Your task to perform on an android device: see sites visited before in the chrome app Image 0: 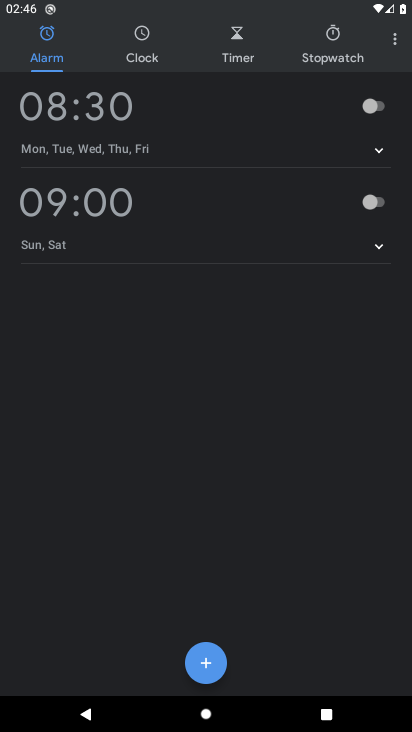
Step 0: press home button
Your task to perform on an android device: see sites visited before in the chrome app Image 1: 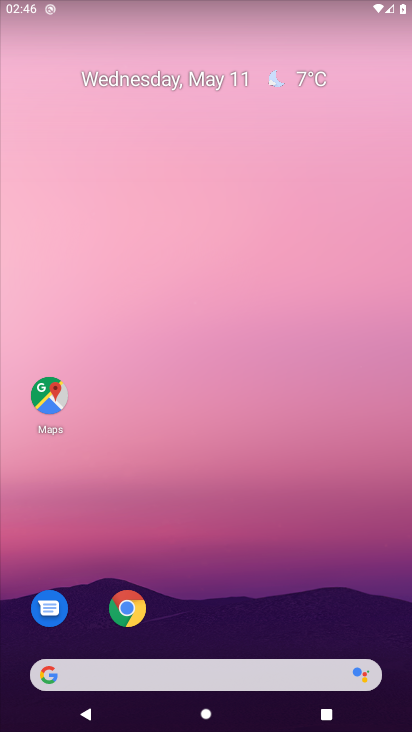
Step 1: drag from (218, 636) to (278, 139)
Your task to perform on an android device: see sites visited before in the chrome app Image 2: 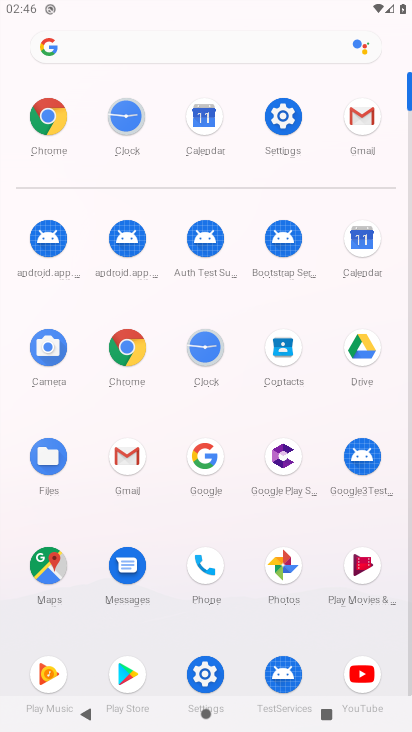
Step 2: click (130, 339)
Your task to perform on an android device: see sites visited before in the chrome app Image 3: 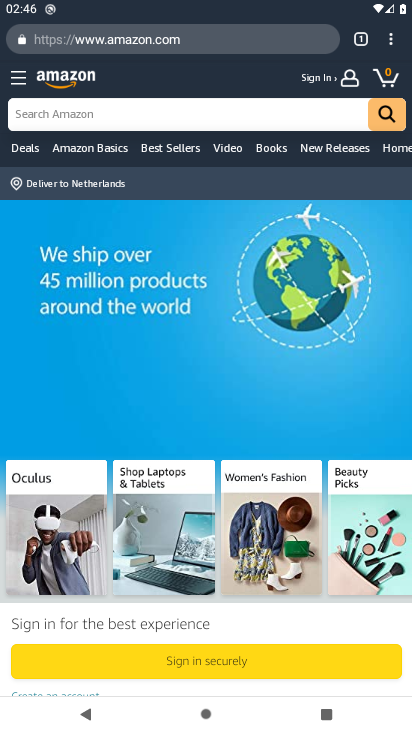
Step 3: click (391, 36)
Your task to perform on an android device: see sites visited before in the chrome app Image 4: 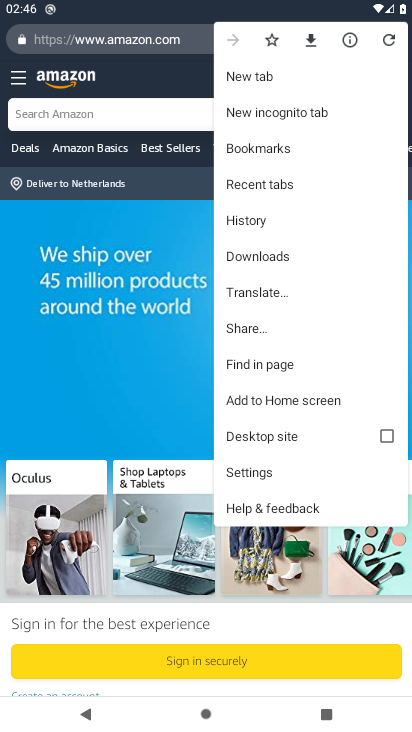
Step 4: click (278, 472)
Your task to perform on an android device: see sites visited before in the chrome app Image 5: 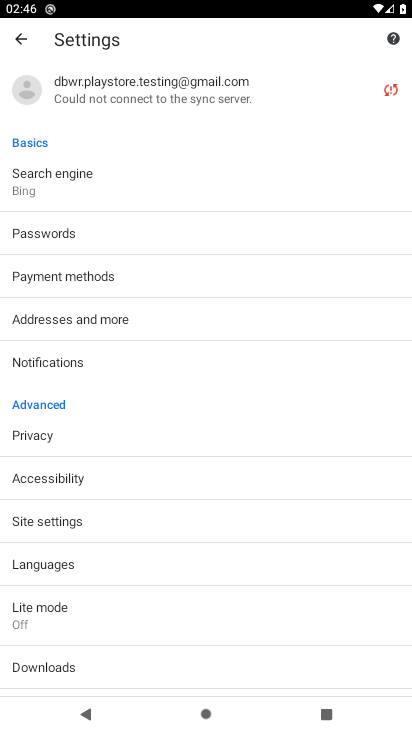
Step 5: click (22, 40)
Your task to perform on an android device: see sites visited before in the chrome app Image 6: 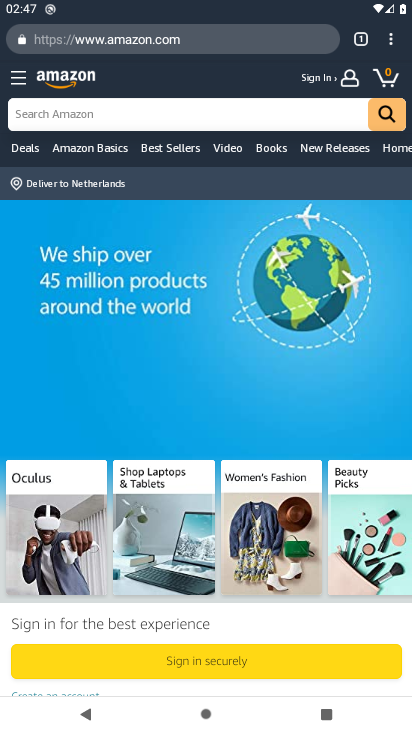
Step 6: click (390, 38)
Your task to perform on an android device: see sites visited before in the chrome app Image 7: 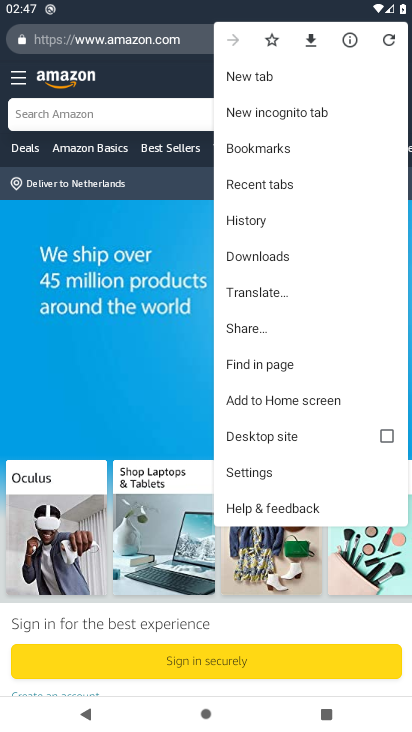
Step 7: click (274, 219)
Your task to perform on an android device: see sites visited before in the chrome app Image 8: 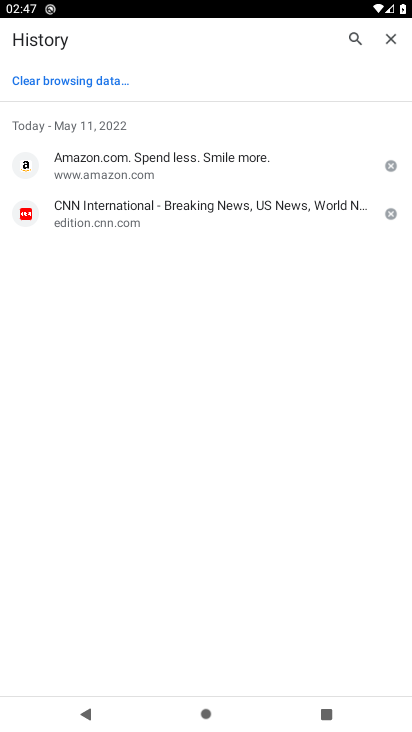
Step 8: task complete